Your task to perform on an android device: Open maps Image 0: 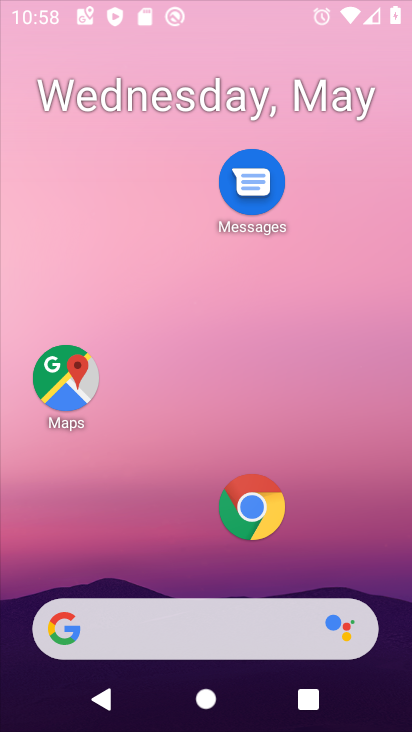
Step 0: drag from (204, 564) to (201, 45)
Your task to perform on an android device: Open maps Image 1: 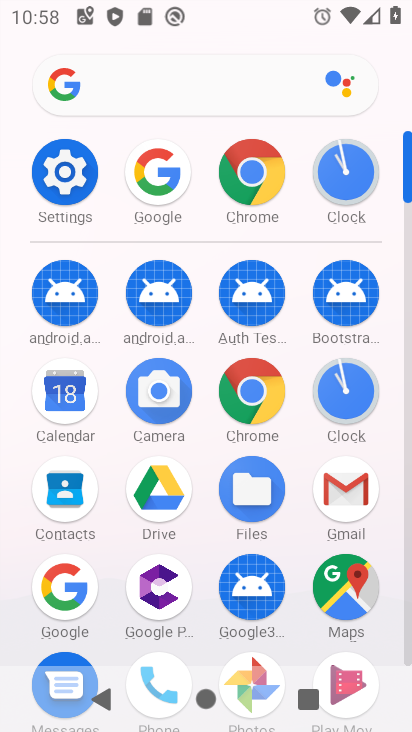
Step 1: click (348, 580)
Your task to perform on an android device: Open maps Image 2: 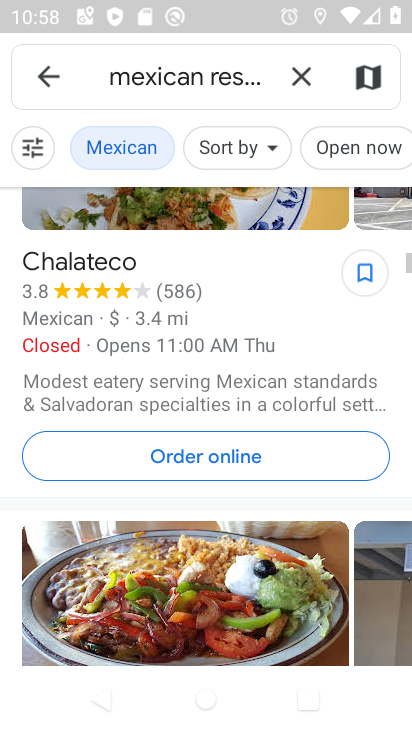
Step 2: click (49, 77)
Your task to perform on an android device: Open maps Image 3: 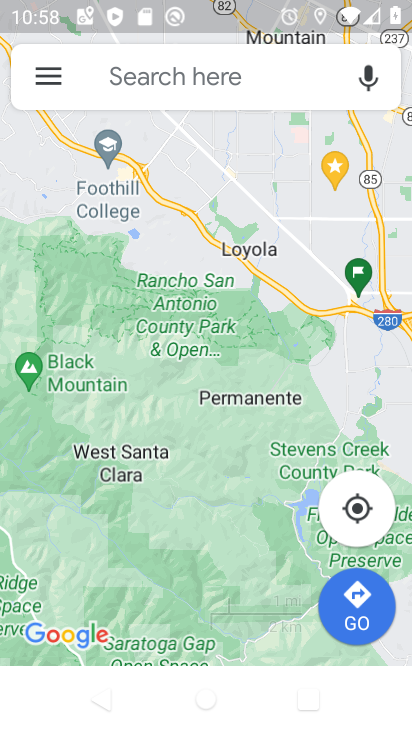
Step 3: task complete